Your task to perform on an android device: Empty the shopping cart on amazon.com. Add razer blackwidow to the cart on amazon.com Image 0: 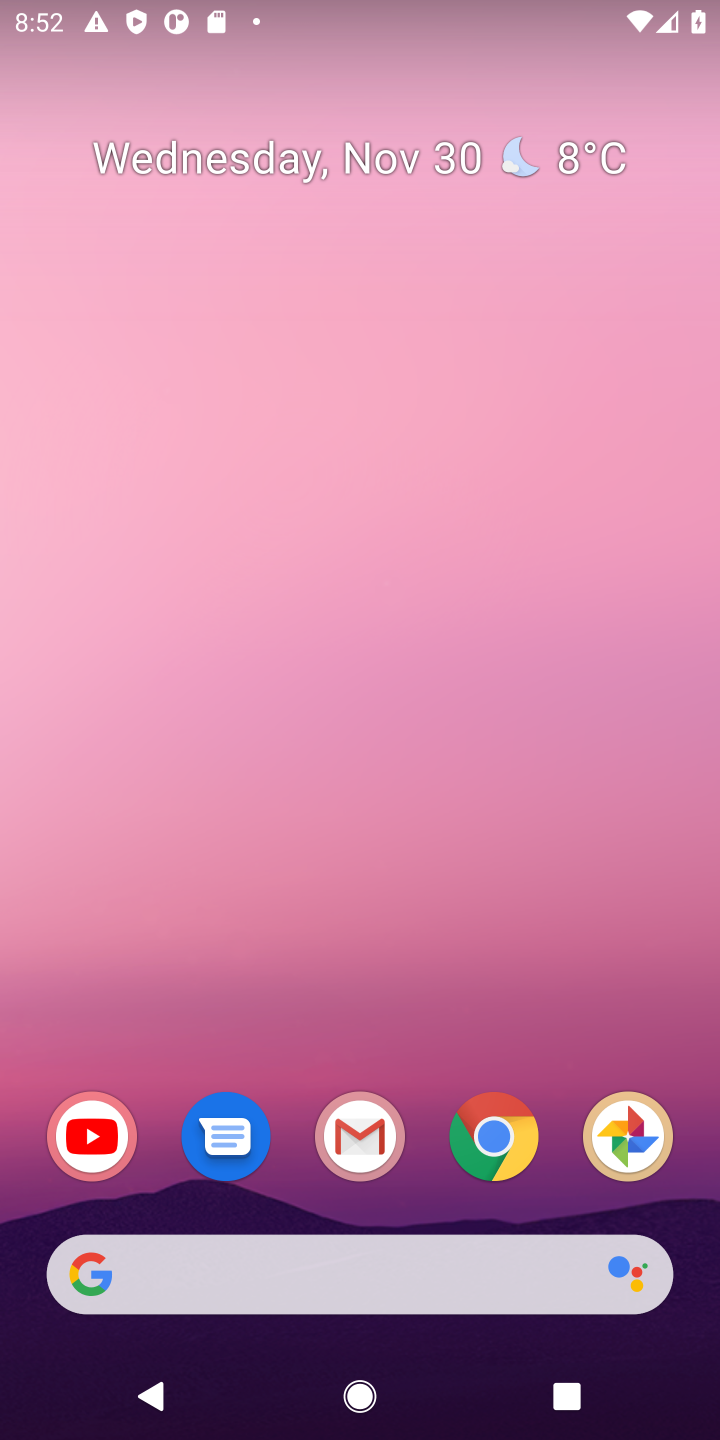
Step 0: click (499, 1138)
Your task to perform on an android device: Empty the shopping cart on amazon.com. Add razer blackwidow to the cart on amazon.com Image 1: 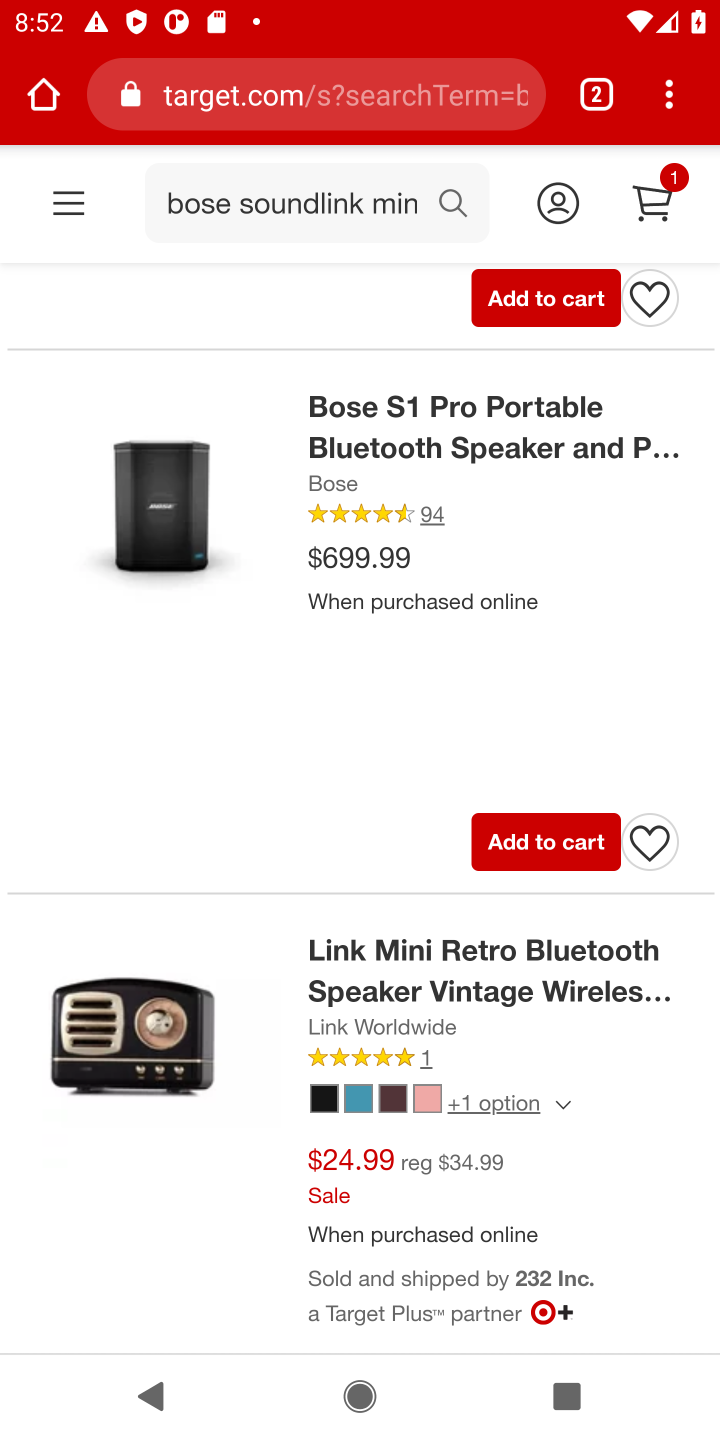
Step 1: click (269, 105)
Your task to perform on an android device: Empty the shopping cart on amazon.com. Add razer blackwidow to the cart on amazon.com Image 2: 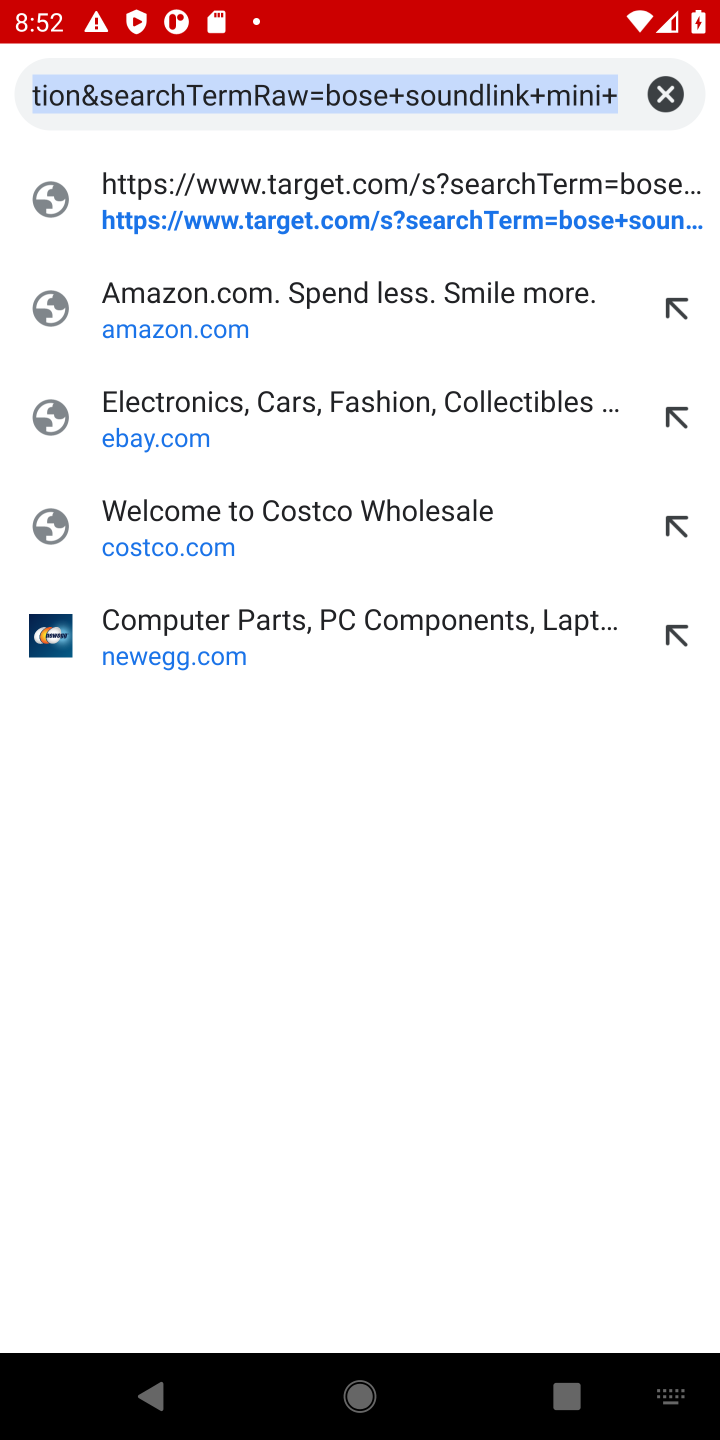
Step 2: click (153, 316)
Your task to perform on an android device: Empty the shopping cart on amazon.com. Add razer blackwidow to the cart on amazon.com Image 3: 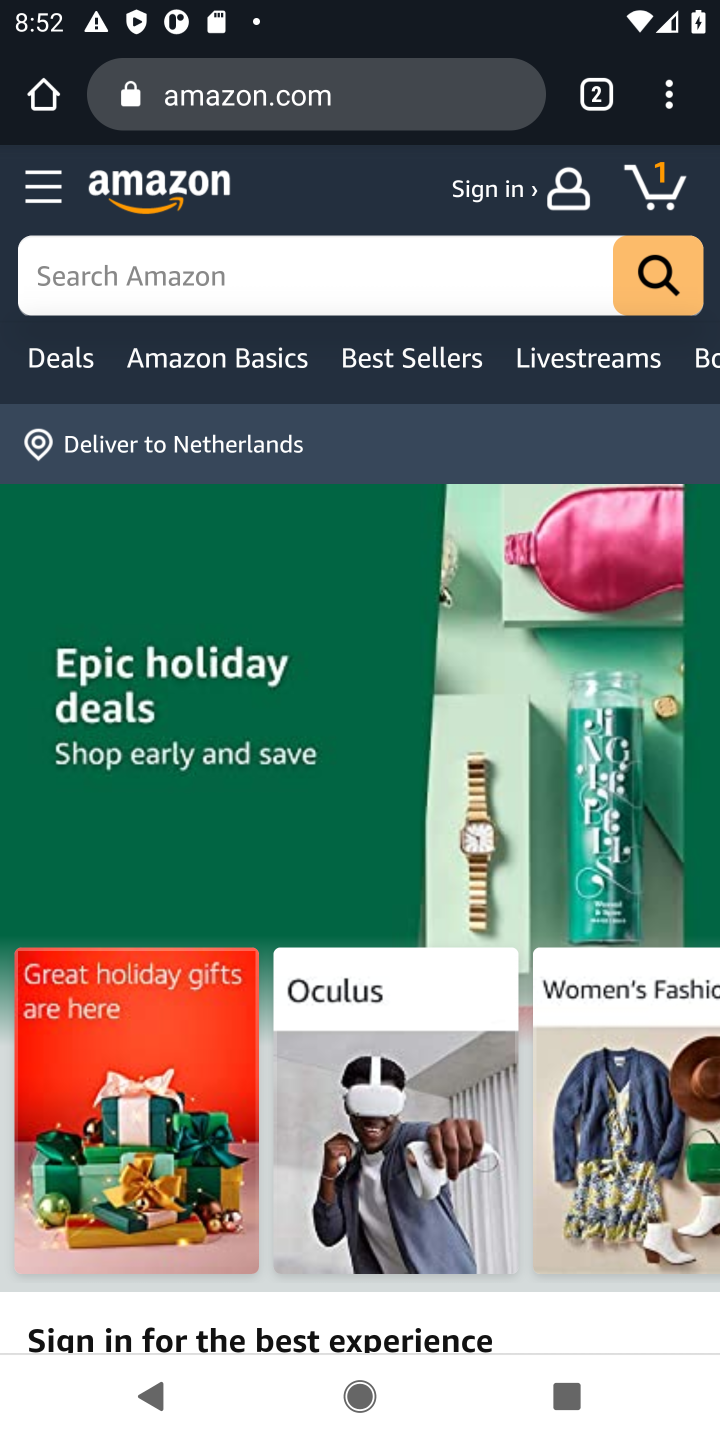
Step 3: click (664, 198)
Your task to perform on an android device: Empty the shopping cart on amazon.com. Add razer blackwidow to the cart on amazon.com Image 4: 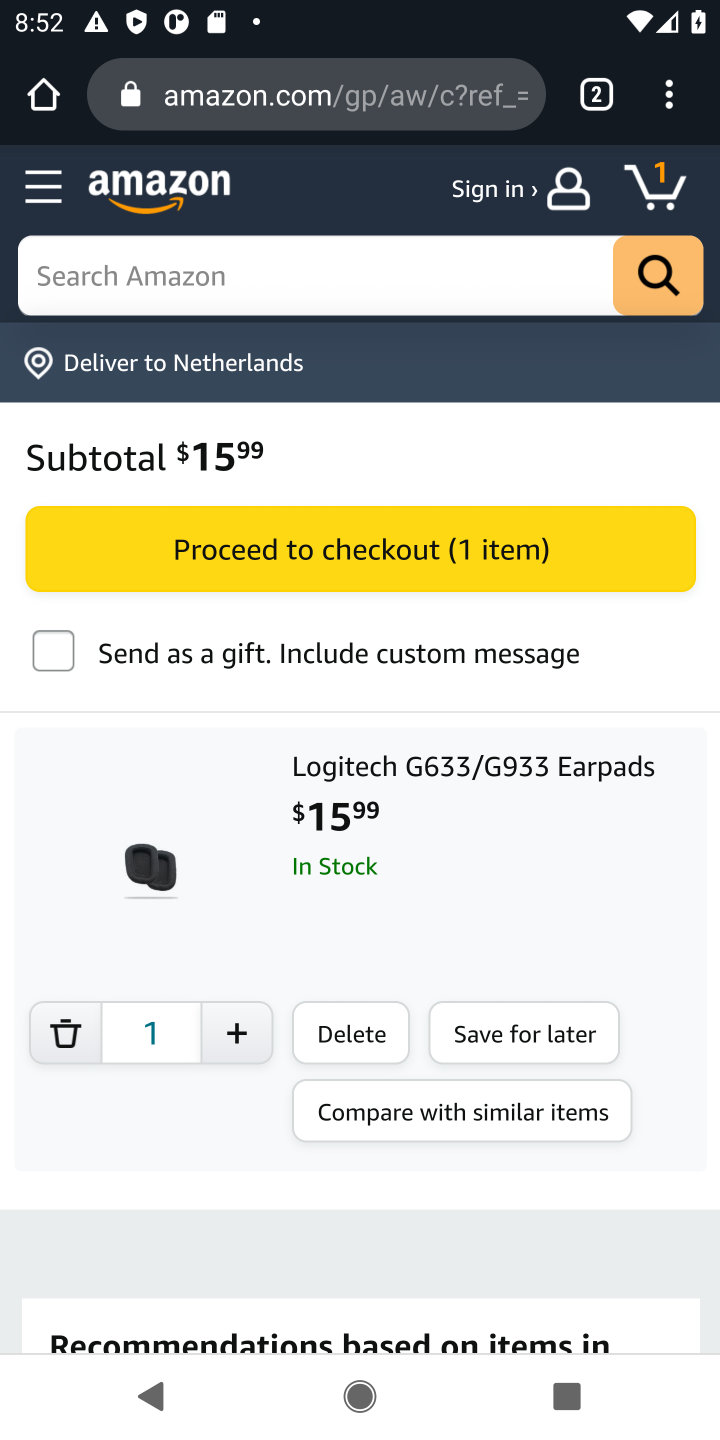
Step 4: click (321, 1025)
Your task to perform on an android device: Empty the shopping cart on amazon.com. Add razer blackwidow to the cart on amazon.com Image 5: 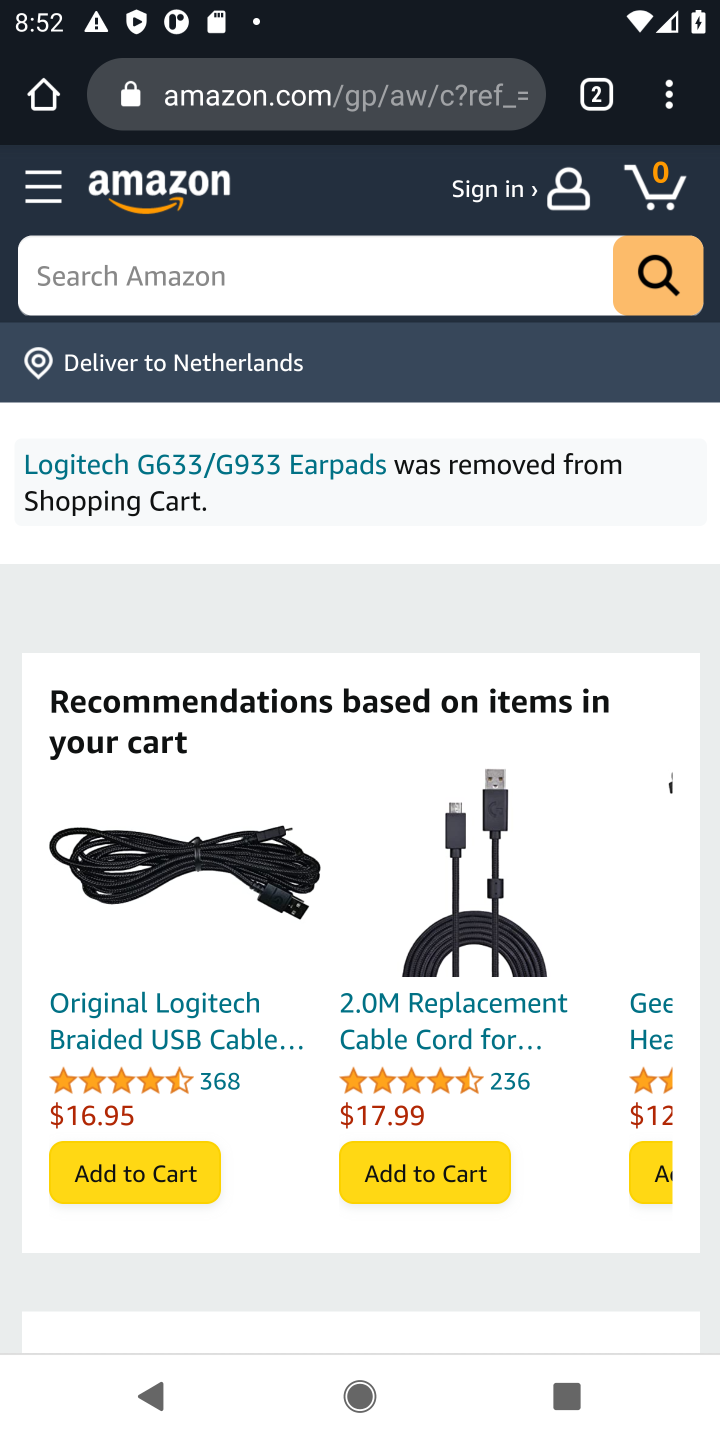
Step 5: click (97, 281)
Your task to perform on an android device: Empty the shopping cart on amazon.com. Add razer blackwidow to the cart on amazon.com Image 6: 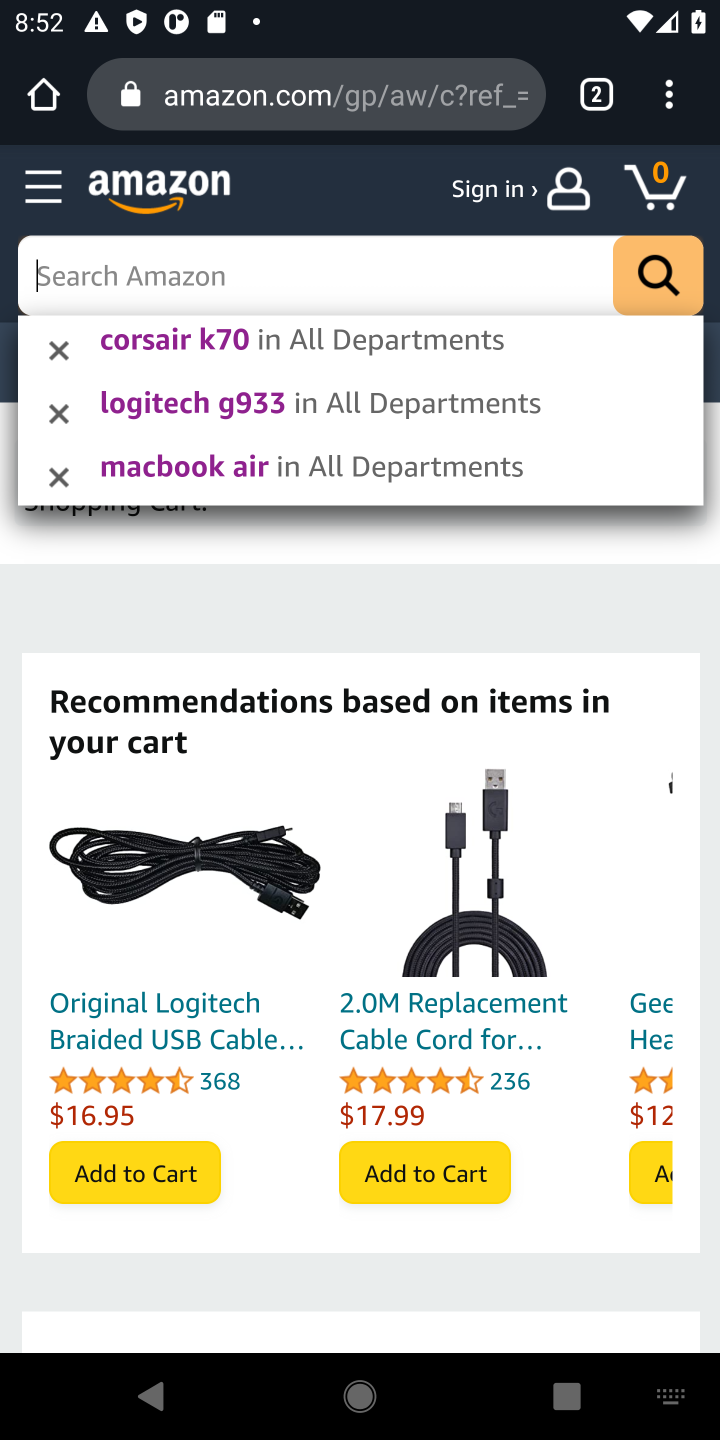
Step 6: type " razer blackwidow"
Your task to perform on an android device: Empty the shopping cart on amazon.com. Add razer blackwidow to the cart on amazon.com Image 7: 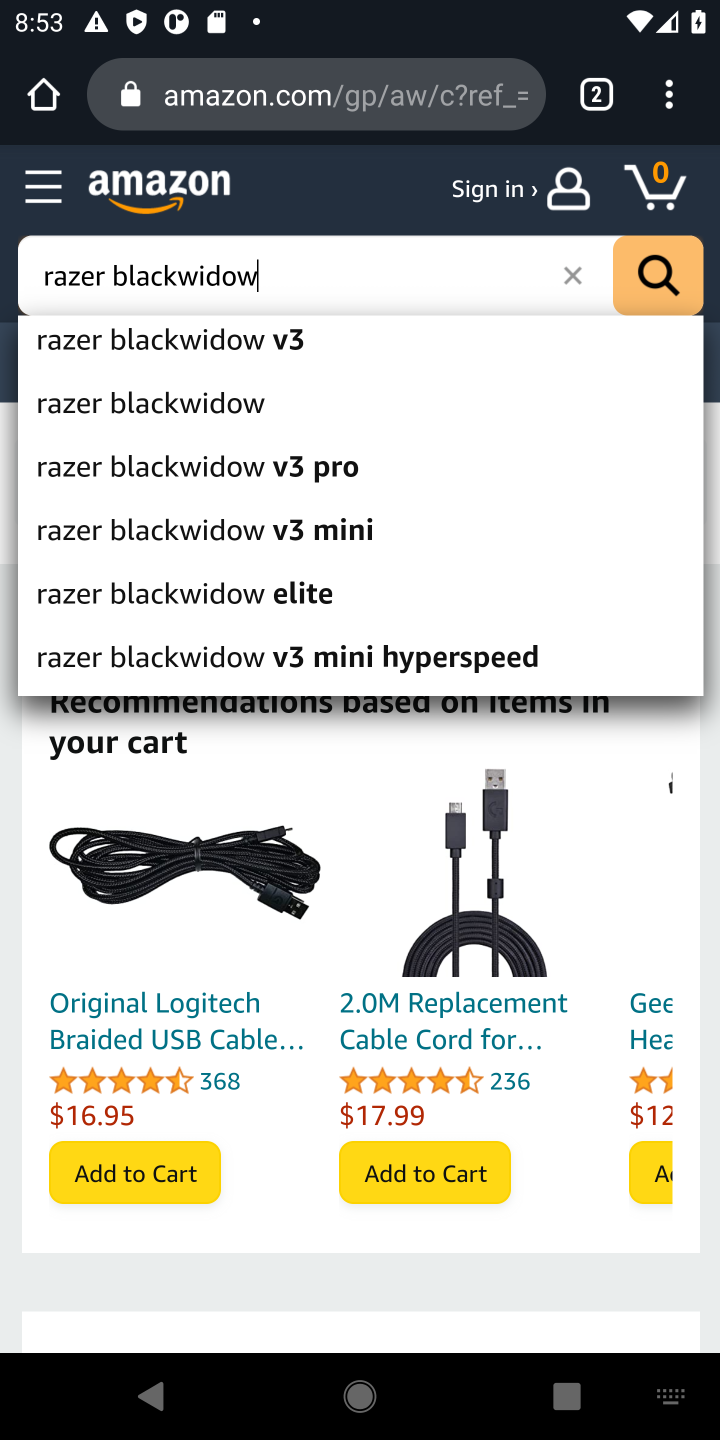
Step 7: click (154, 410)
Your task to perform on an android device: Empty the shopping cart on amazon.com. Add razer blackwidow to the cart on amazon.com Image 8: 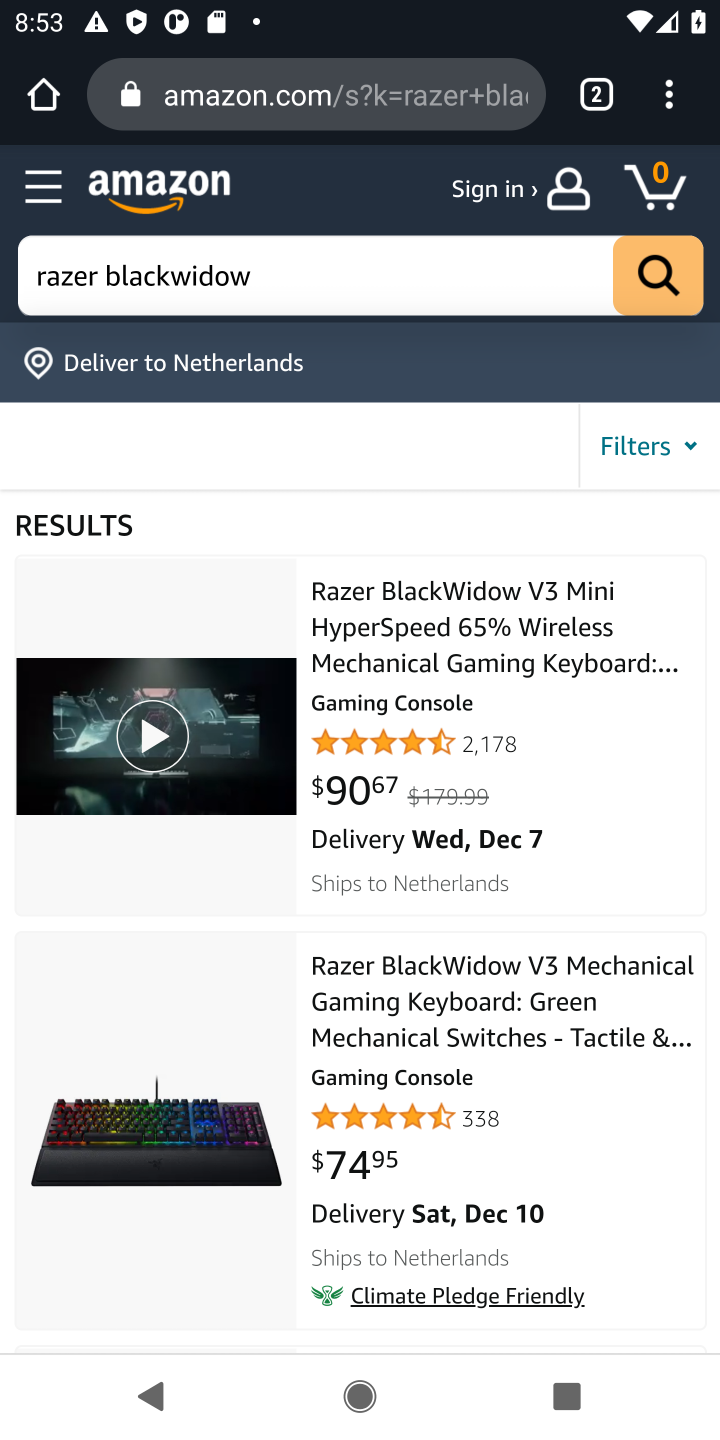
Step 8: click (424, 662)
Your task to perform on an android device: Empty the shopping cart on amazon.com. Add razer blackwidow to the cart on amazon.com Image 9: 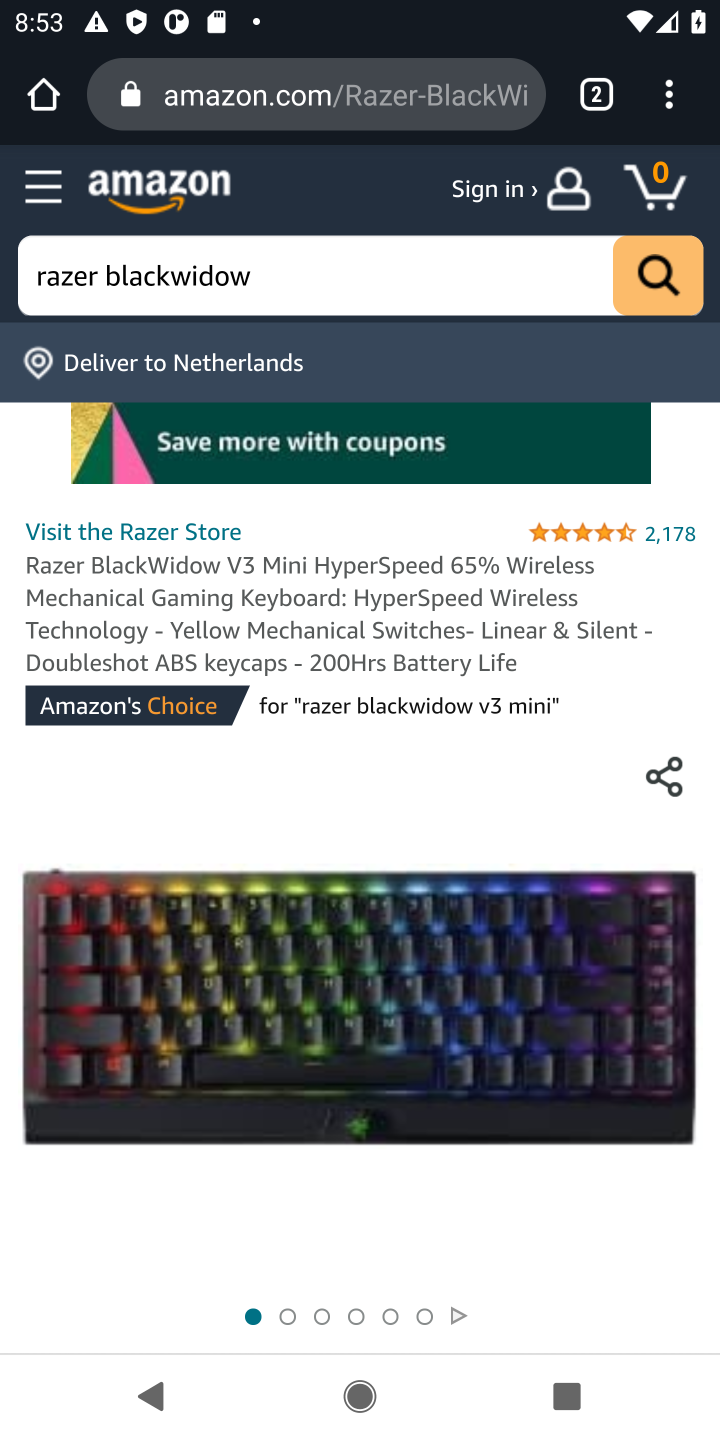
Step 9: drag from (428, 898) to (381, 429)
Your task to perform on an android device: Empty the shopping cart on amazon.com. Add razer blackwidow to the cart on amazon.com Image 10: 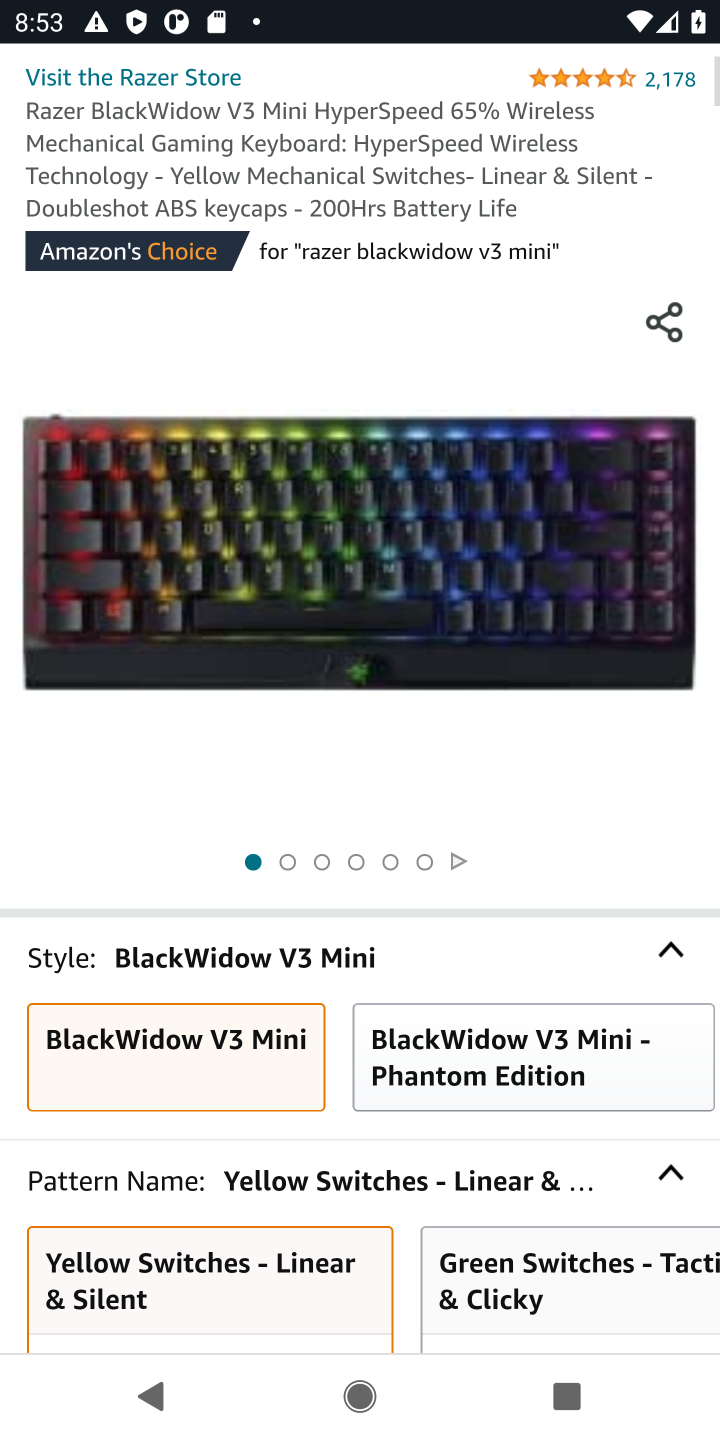
Step 10: drag from (360, 825) to (347, 347)
Your task to perform on an android device: Empty the shopping cart on amazon.com. Add razer blackwidow to the cart on amazon.com Image 11: 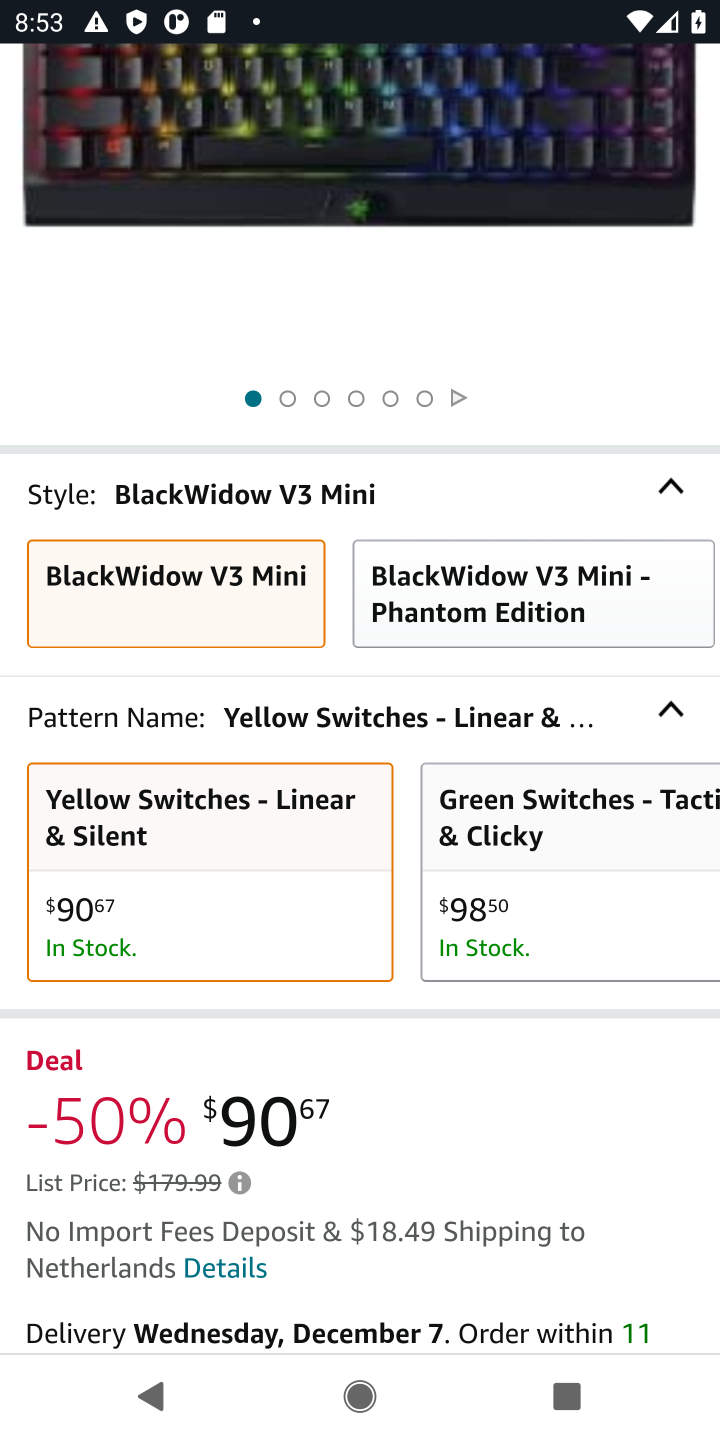
Step 11: drag from (402, 732) to (402, 453)
Your task to perform on an android device: Empty the shopping cart on amazon.com. Add razer blackwidow to the cart on amazon.com Image 12: 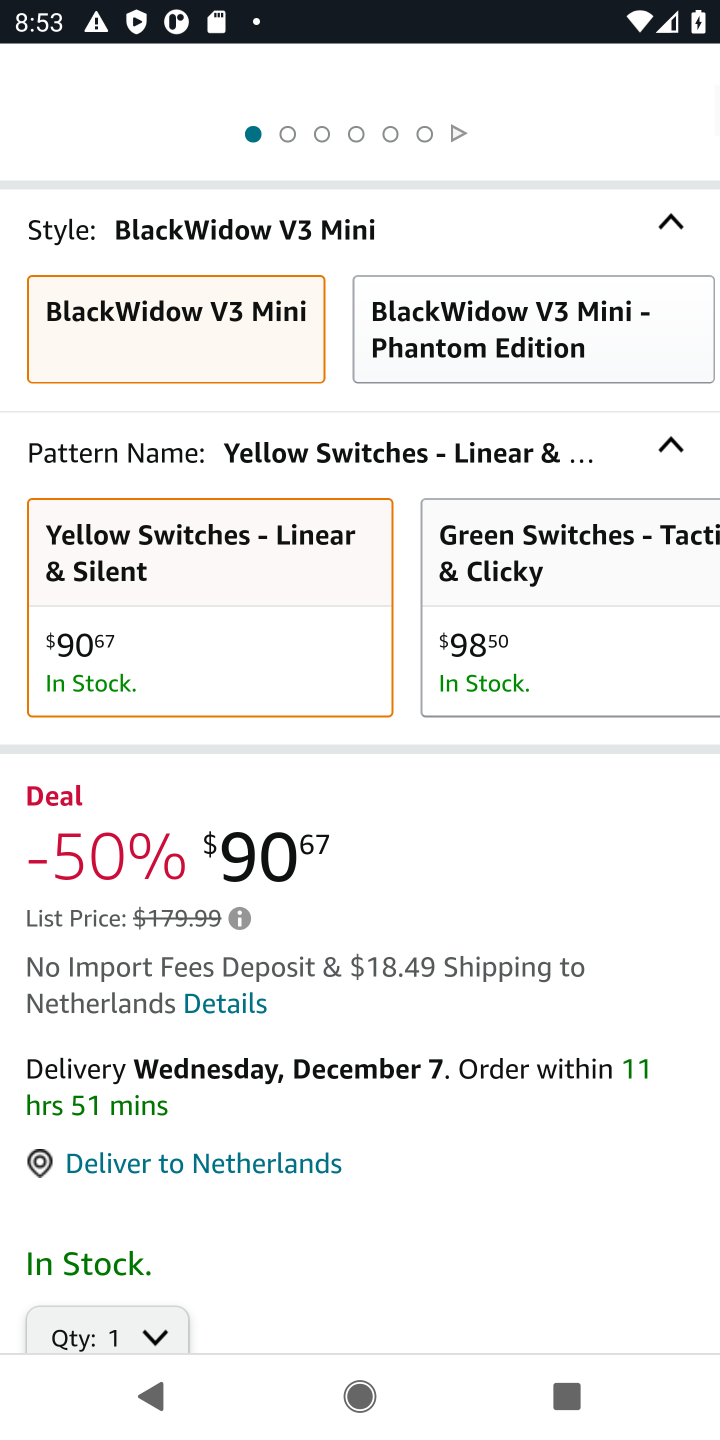
Step 12: drag from (403, 866) to (395, 527)
Your task to perform on an android device: Empty the shopping cart on amazon.com. Add razer blackwidow to the cart on amazon.com Image 13: 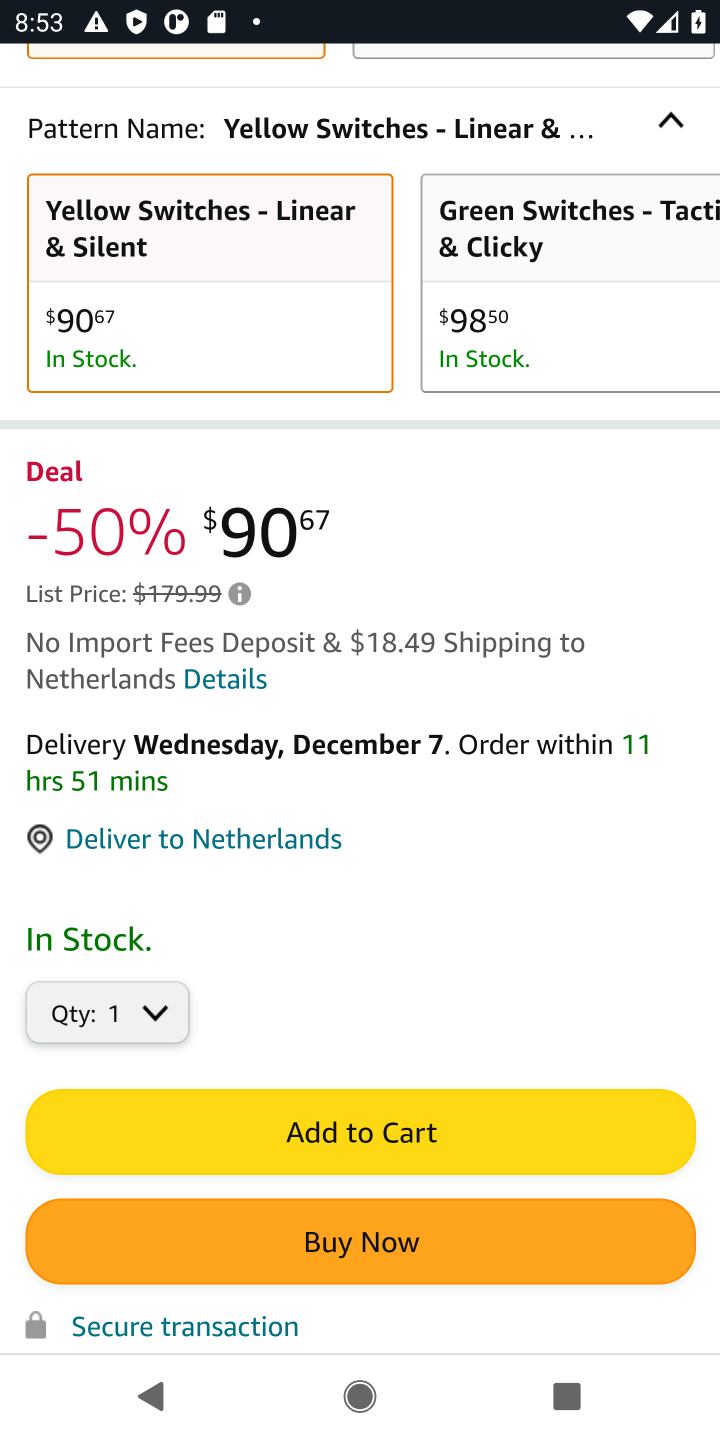
Step 13: click (341, 1117)
Your task to perform on an android device: Empty the shopping cart on amazon.com. Add razer blackwidow to the cart on amazon.com Image 14: 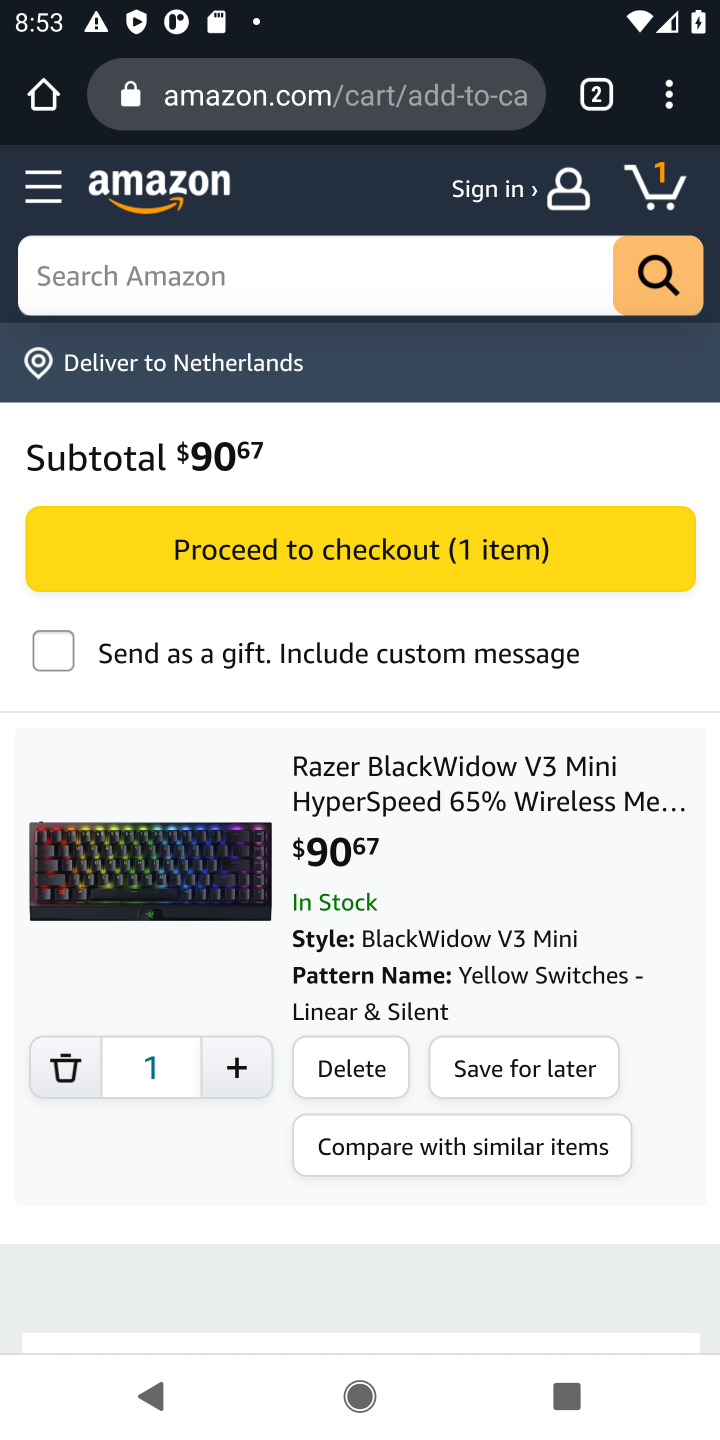
Step 14: task complete